Your task to perform on an android device: turn on data saver in the chrome app Image 0: 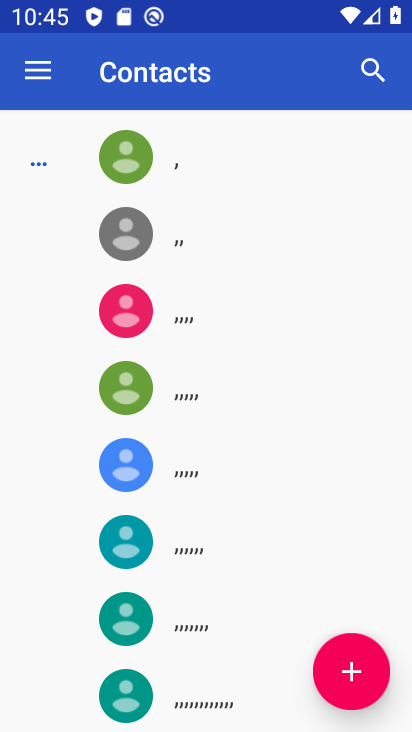
Step 0: press home button
Your task to perform on an android device: turn on data saver in the chrome app Image 1: 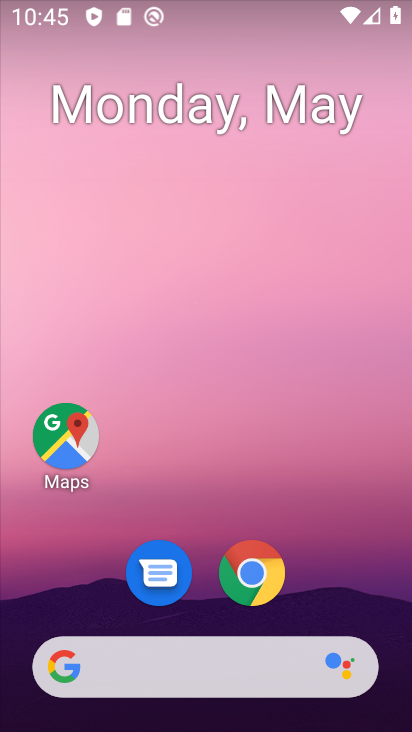
Step 1: click (254, 569)
Your task to perform on an android device: turn on data saver in the chrome app Image 2: 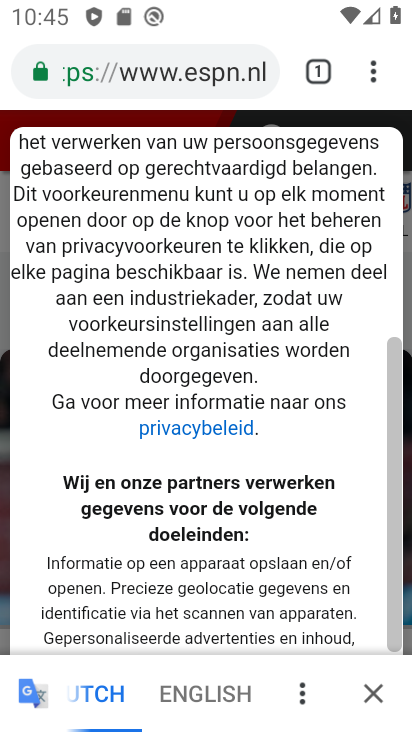
Step 2: click (378, 53)
Your task to perform on an android device: turn on data saver in the chrome app Image 3: 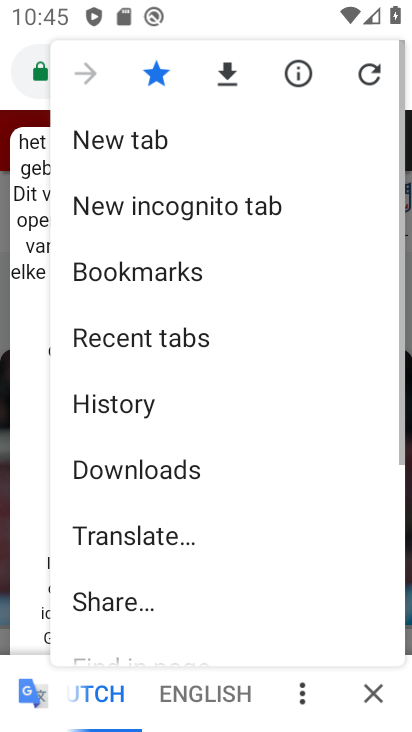
Step 3: drag from (214, 609) to (238, 204)
Your task to perform on an android device: turn on data saver in the chrome app Image 4: 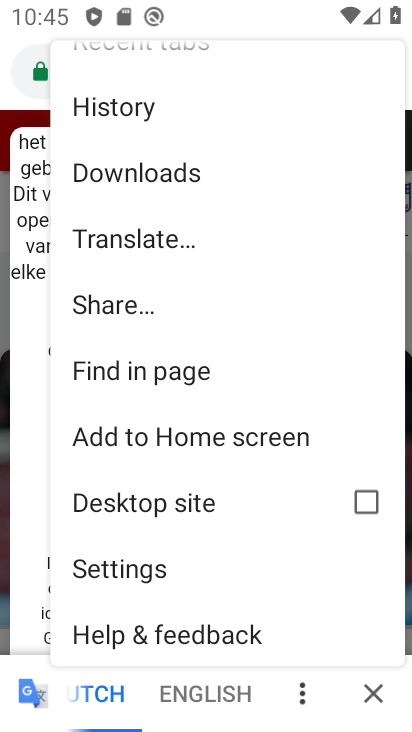
Step 4: click (256, 575)
Your task to perform on an android device: turn on data saver in the chrome app Image 5: 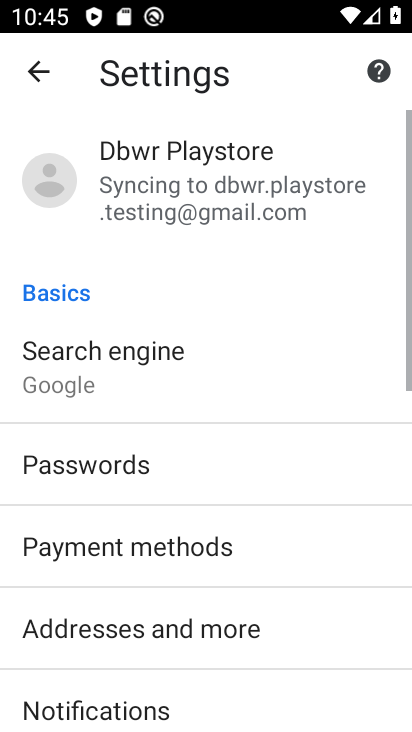
Step 5: drag from (241, 558) to (262, 151)
Your task to perform on an android device: turn on data saver in the chrome app Image 6: 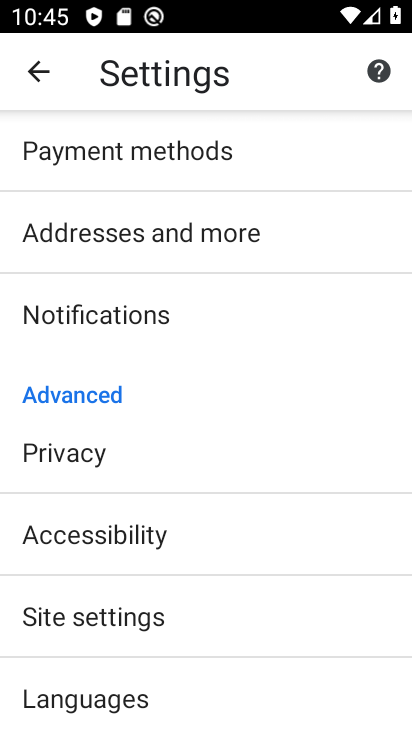
Step 6: drag from (182, 662) to (229, 350)
Your task to perform on an android device: turn on data saver in the chrome app Image 7: 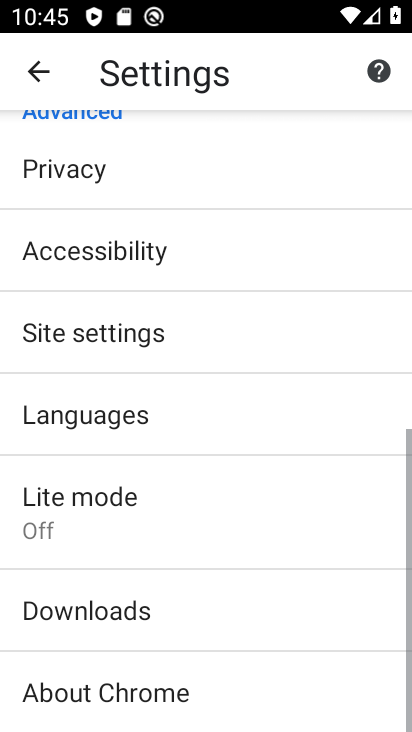
Step 7: click (182, 509)
Your task to perform on an android device: turn on data saver in the chrome app Image 8: 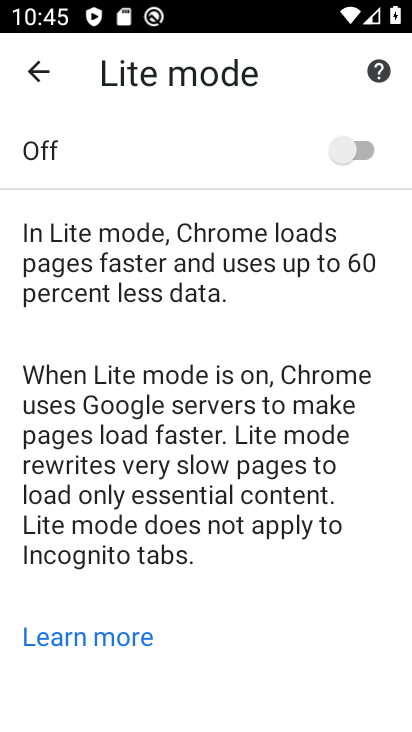
Step 8: click (107, 492)
Your task to perform on an android device: turn on data saver in the chrome app Image 9: 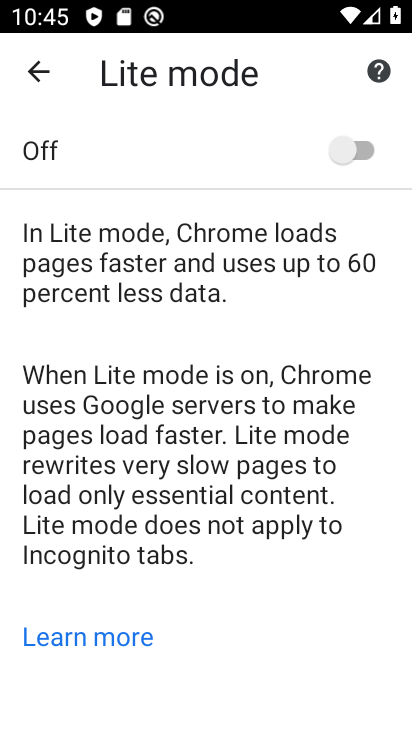
Step 9: click (358, 142)
Your task to perform on an android device: turn on data saver in the chrome app Image 10: 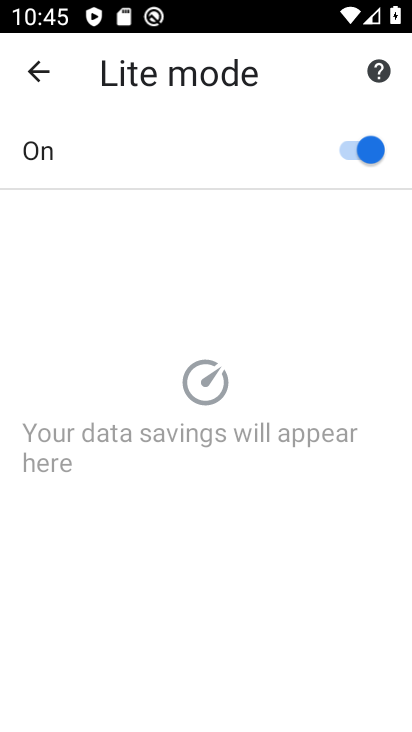
Step 10: task complete